Your task to perform on an android device: remove spam from my inbox in the gmail app Image 0: 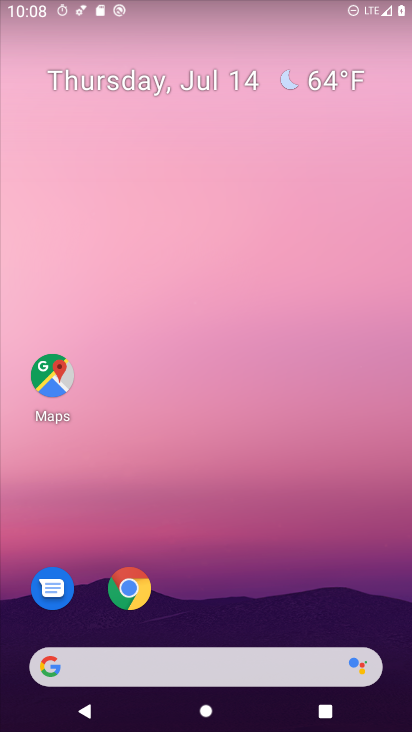
Step 0: drag from (370, 597) to (396, 64)
Your task to perform on an android device: remove spam from my inbox in the gmail app Image 1: 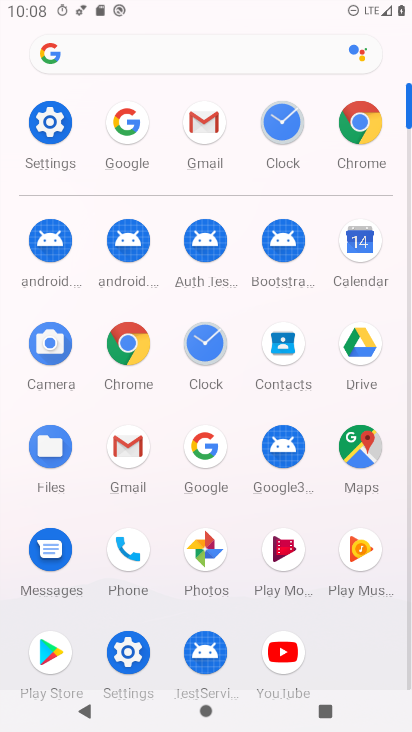
Step 1: click (208, 135)
Your task to perform on an android device: remove spam from my inbox in the gmail app Image 2: 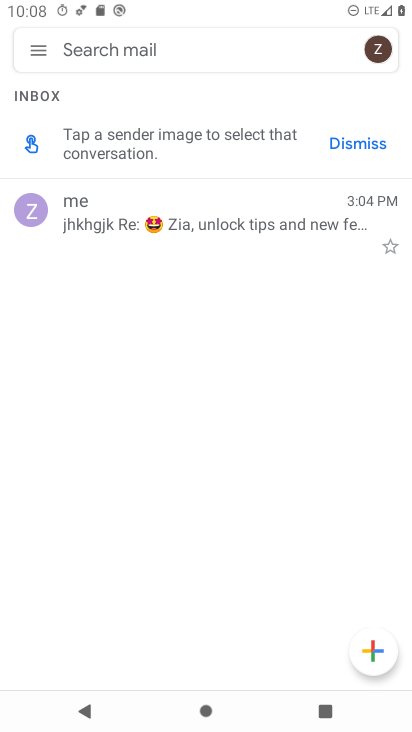
Step 2: click (39, 51)
Your task to perform on an android device: remove spam from my inbox in the gmail app Image 3: 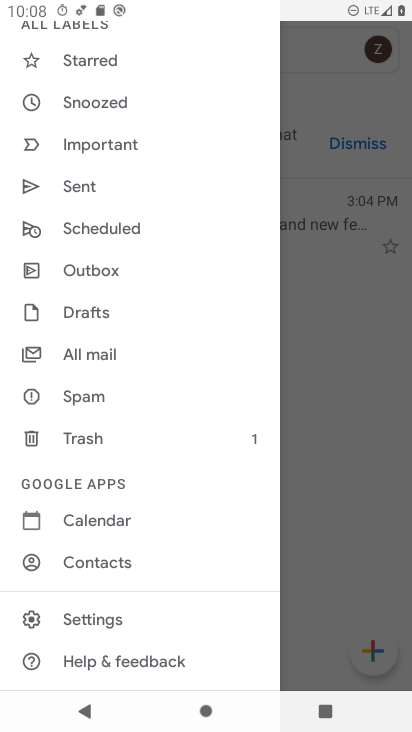
Step 3: drag from (223, 564) to (214, 453)
Your task to perform on an android device: remove spam from my inbox in the gmail app Image 4: 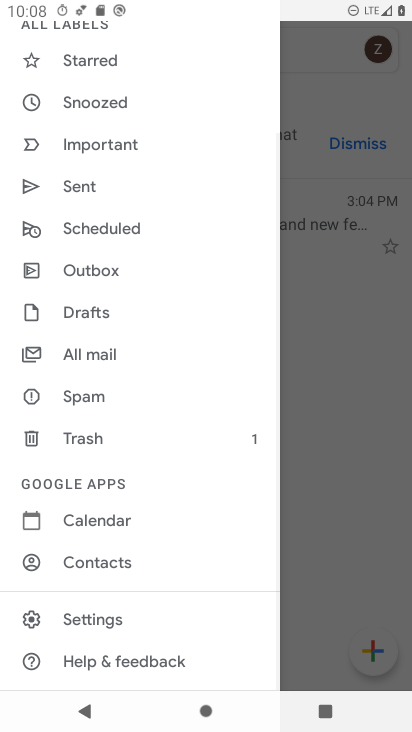
Step 4: click (131, 391)
Your task to perform on an android device: remove spam from my inbox in the gmail app Image 5: 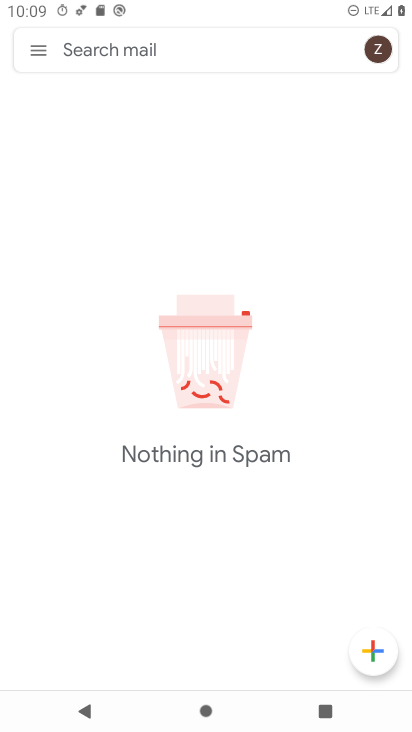
Step 5: task complete